Your task to perform on an android device: Go to CNN.com Image 0: 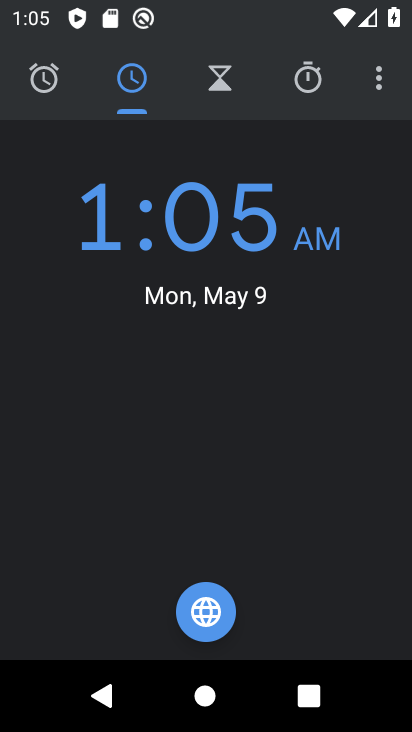
Step 0: press home button
Your task to perform on an android device: Go to CNN.com Image 1: 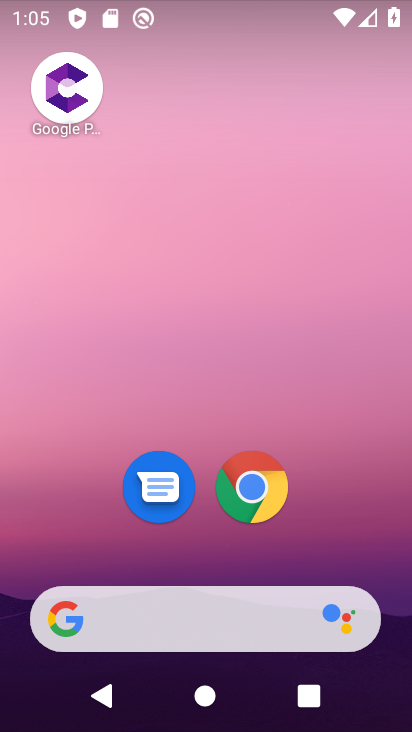
Step 1: click (223, 207)
Your task to perform on an android device: Go to CNN.com Image 2: 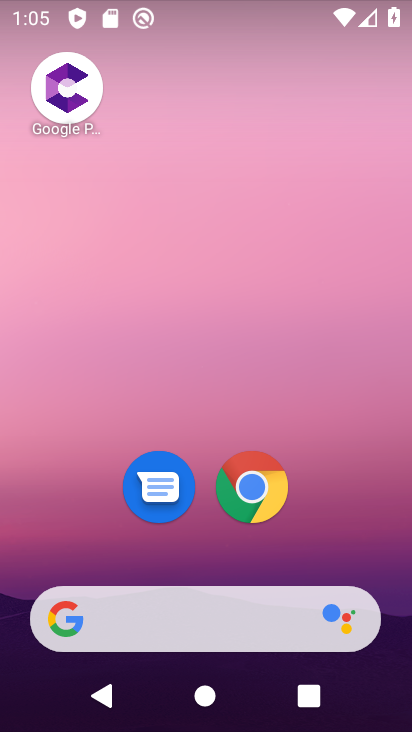
Step 2: drag from (214, 499) to (262, 109)
Your task to perform on an android device: Go to CNN.com Image 3: 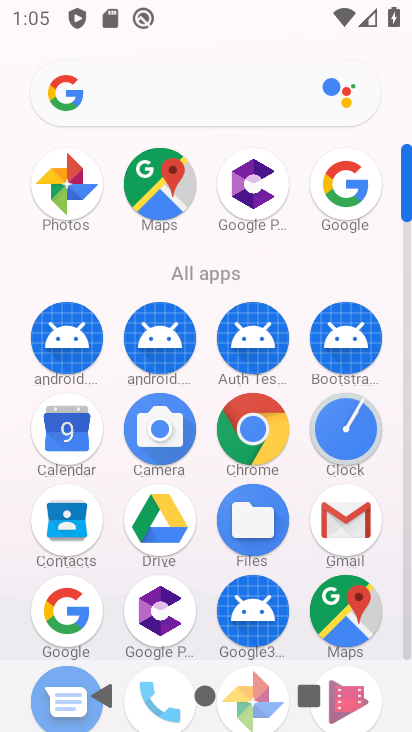
Step 3: click (55, 613)
Your task to perform on an android device: Go to CNN.com Image 4: 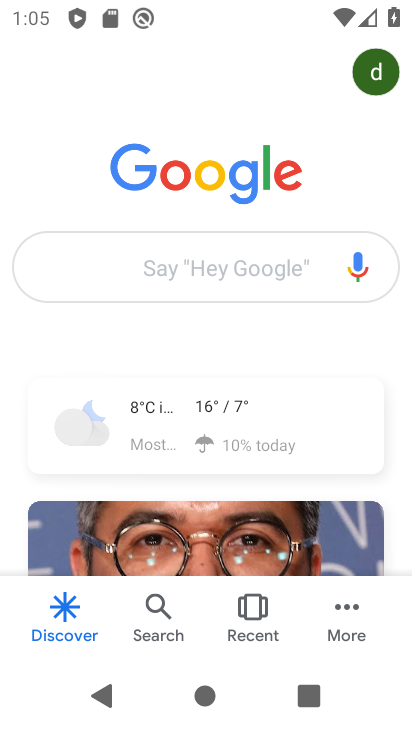
Step 4: click (168, 284)
Your task to perform on an android device: Go to CNN.com Image 5: 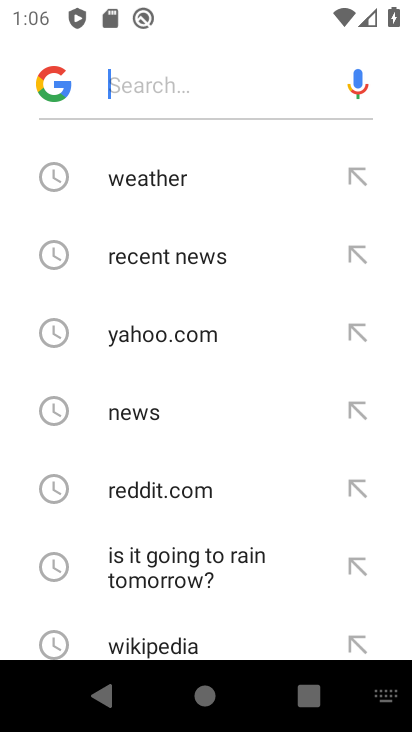
Step 5: type "CNN.com"
Your task to perform on an android device: Go to CNN.com Image 6: 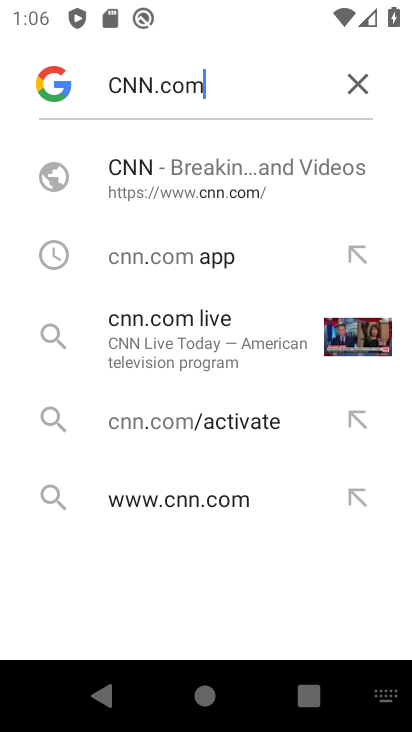
Step 6: click (177, 175)
Your task to perform on an android device: Go to CNN.com Image 7: 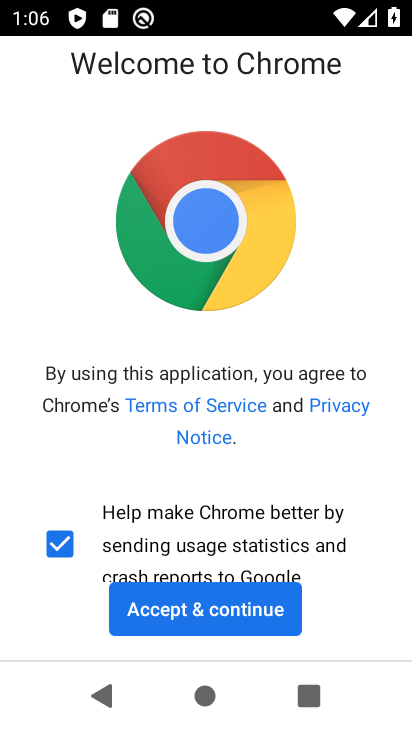
Step 7: click (158, 620)
Your task to perform on an android device: Go to CNN.com Image 8: 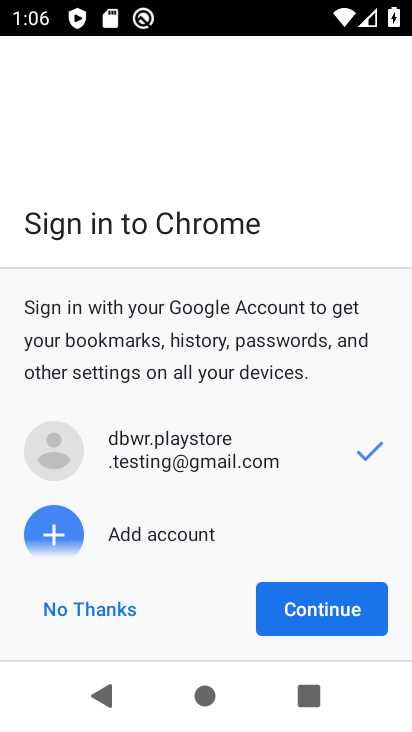
Step 8: click (310, 615)
Your task to perform on an android device: Go to CNN.com Image 9: 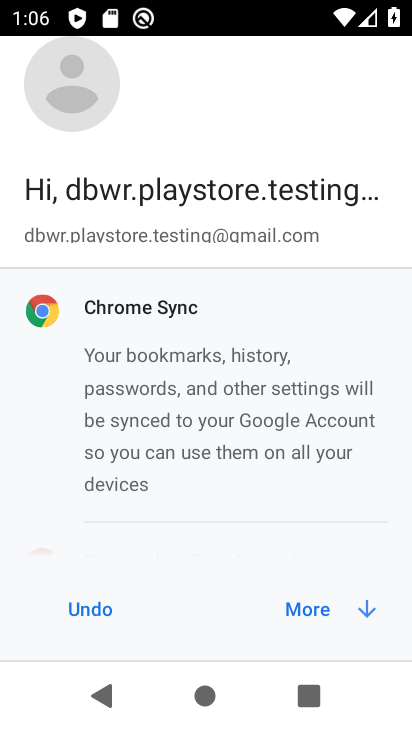
Step 9: click (310, 615)
Your task to perform on an android device: Go to CNN.com Image 10: 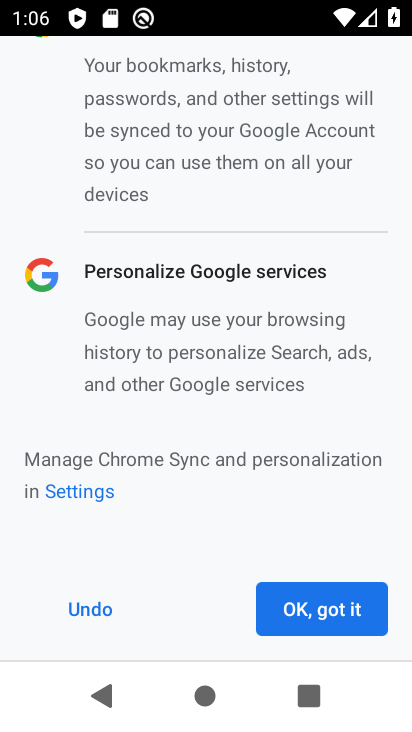
Step 10: click (310, 615)
Your task to perform on an android device: Go to CNN.com Image 11: 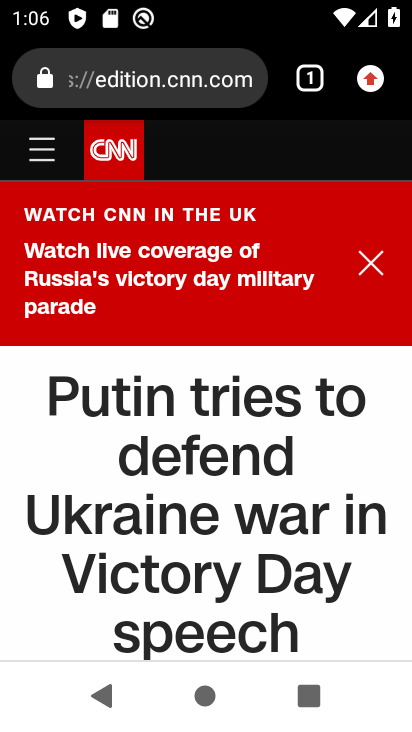
Step 11: task complete